Your task to perform on an android device: Go to Android settings Image 0: 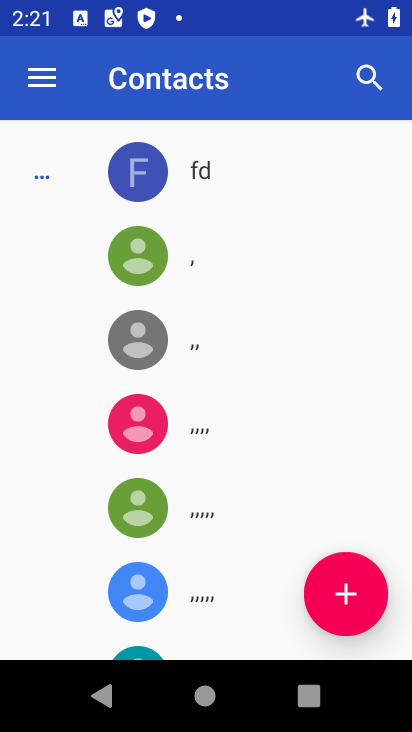
Step 0: press home button
Your task to perform on an android device: Go to Android settings Image 1: 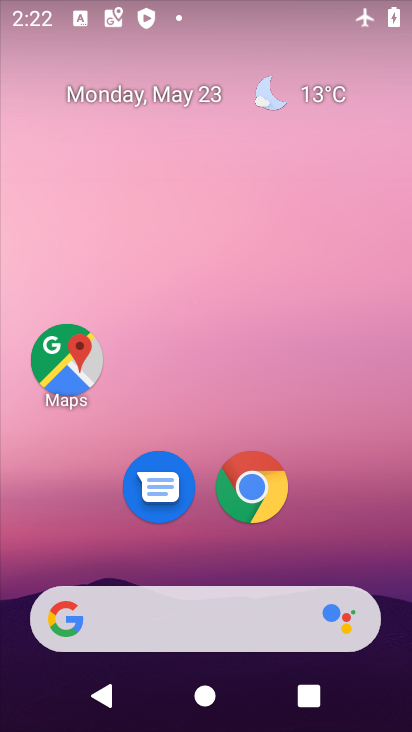
Step 1: drag from (404, 617) to (316, 68)
Your task to perform on an android device: Go to Android settings Image 2: 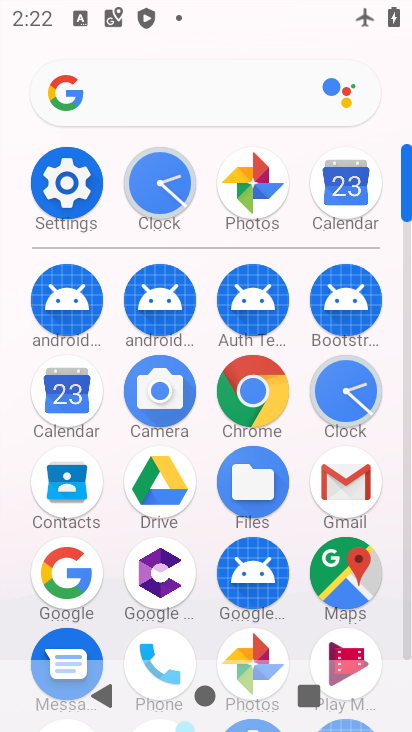
Step 2: click (405, 636)
Your task to perform on an android device: Go to Android settings Image 3: 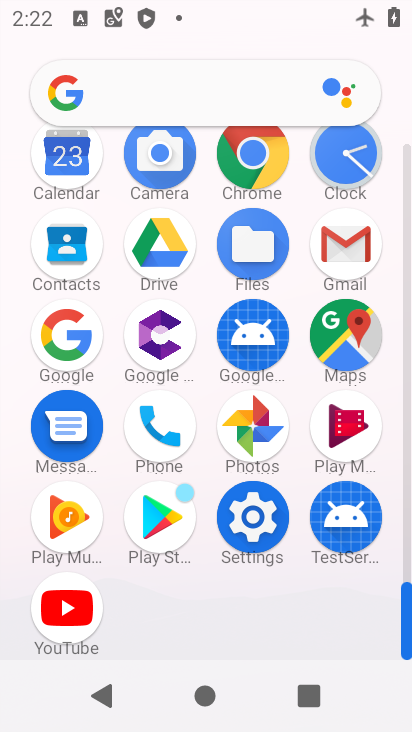
Step 3: click (258, 520)
Your task to perform on an android device: Go to Android settings Image 4: 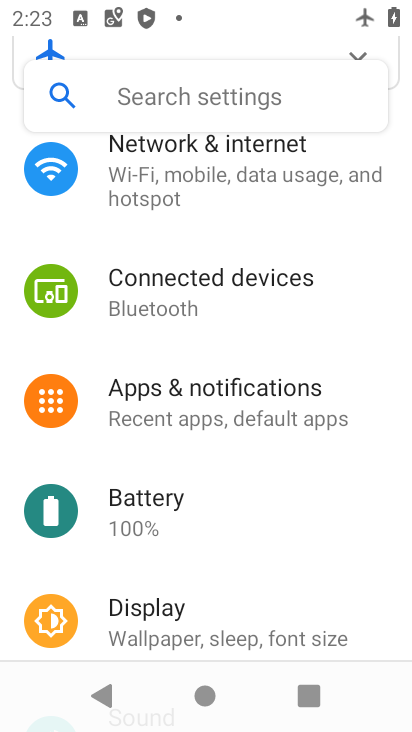
Step 4: drag from (252, 611) to (233, 217)
Your task to perform on an android device: Go to Android settings Image 5: 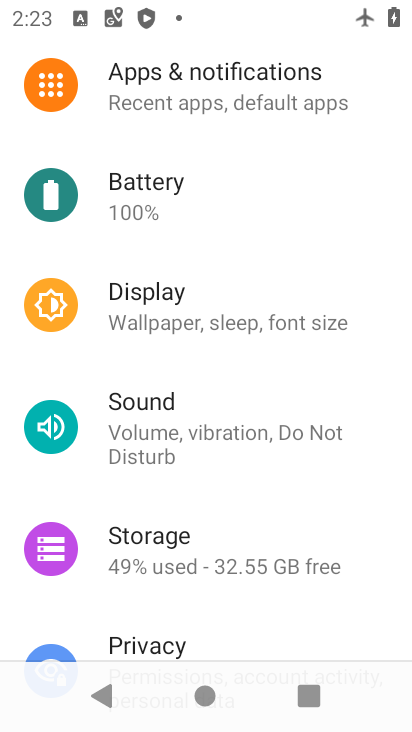
Step 5: drag from (314, 626) to (302, 192)
Your task to perform on an android device: Go to Android settings Image 6: 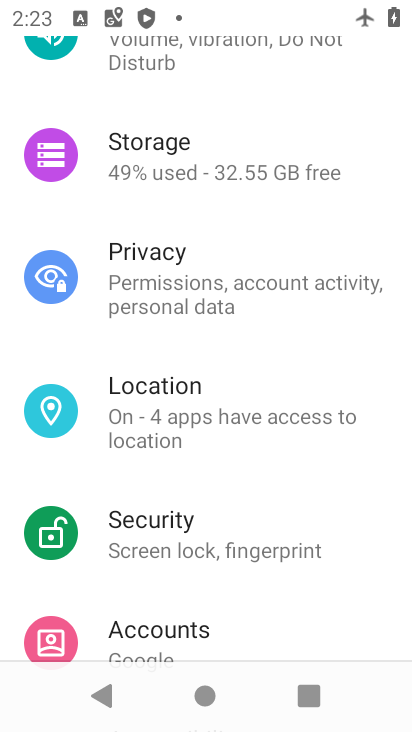
Step 6: drag from (336, 604) to (316, 210)
Your task to perform on an android device: Go to Android settings Image 7: 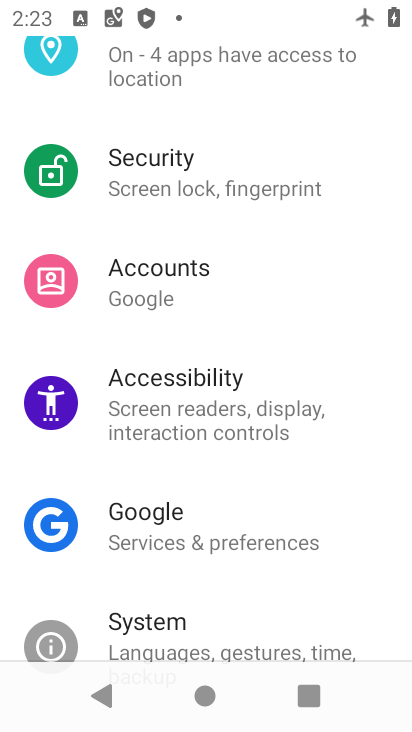
Step 7: drag from (307, 639) to (231, 157)
Your task to perform on an android device: Go to Android settings Image 8: 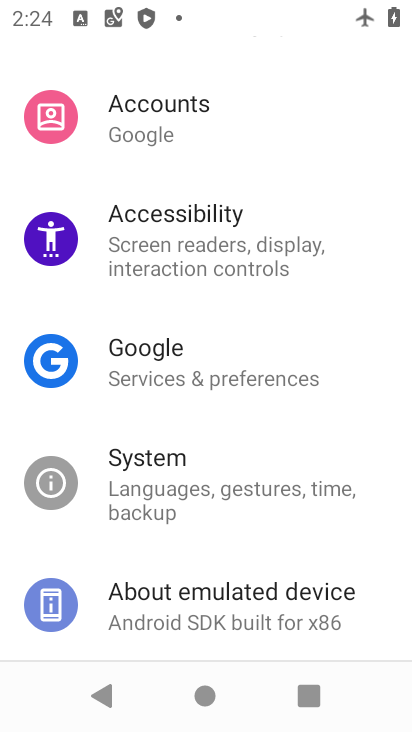
Step 8: click (194, 608)
Your task to perform on an android device: Go to Android settings Image 9: 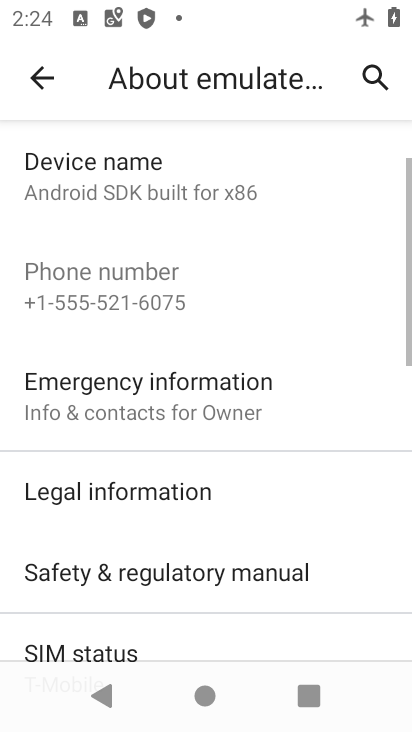
Step 9: task complete